Your task to perform on an android device: check storage Image 0: 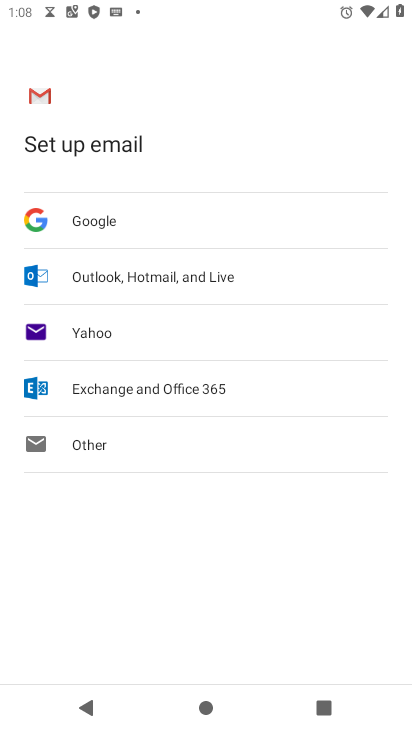
Step 0: press home button
Your task to perform on an android device: check storage Image 1: 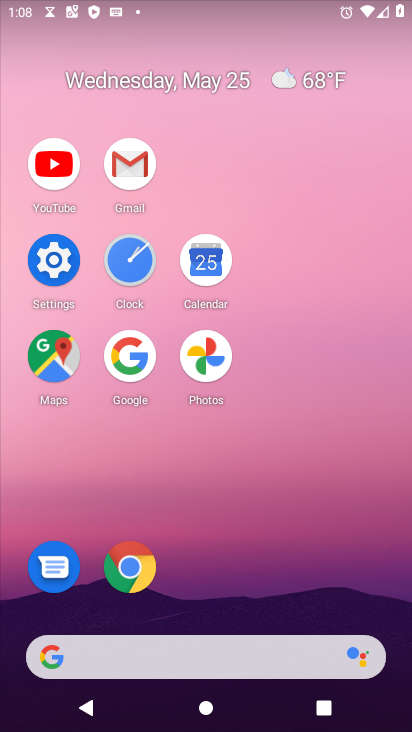
Step 1: click (76, 276)
Your task to perform on an android device: check storage Image 2: 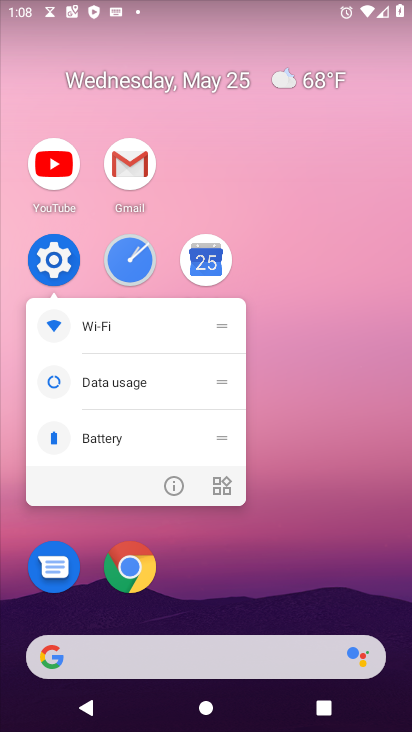
Step 2: click (60, 261)
Your task to perform on an android device: check storage Image 3: 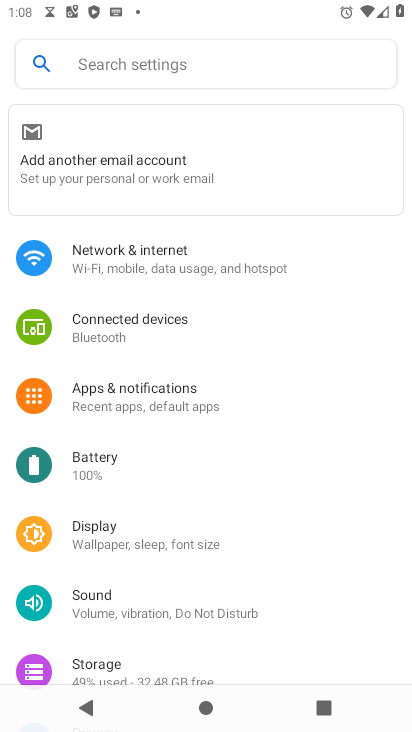
Step 3: click (150, 655)
Your task to perform on an android device: check storage Image 4: 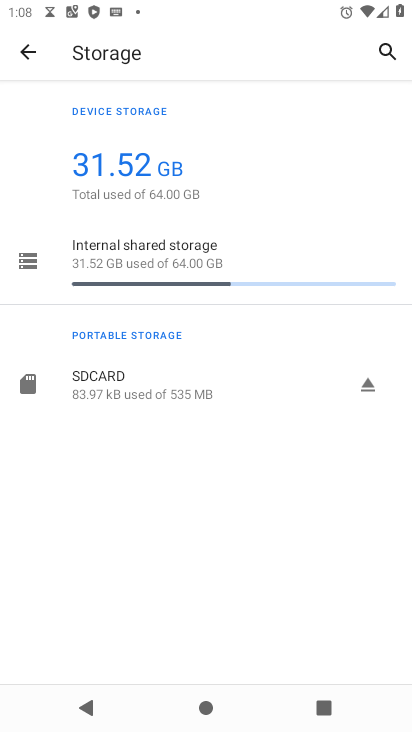
Step 4: task complete